Your task to perform on an android device: see creations saved in the google photos Image 0: 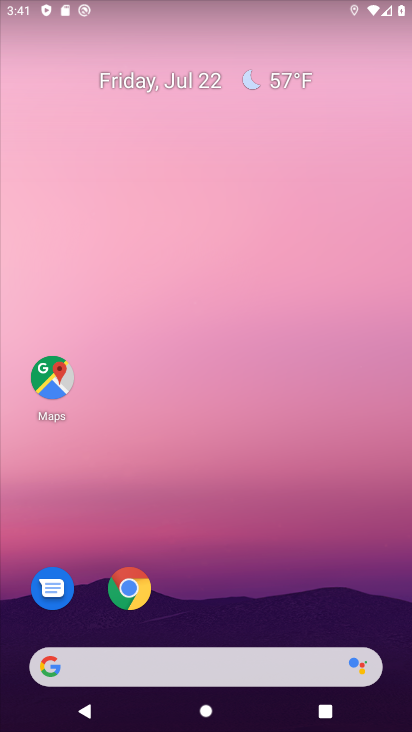
Step 0: drag from (211, 646) to (198, 86)
Your task to perform on an android device: see creations saved in the google photos Image 1: 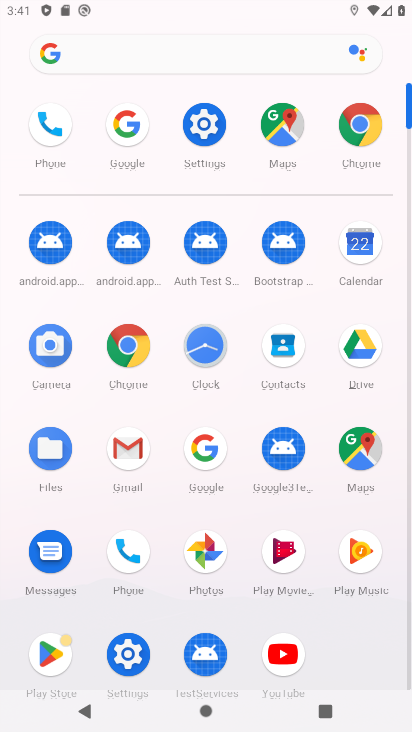
Step 1: click (189, 572)
Your task to perform on an android device: see creations saved in the google photos Image 2: 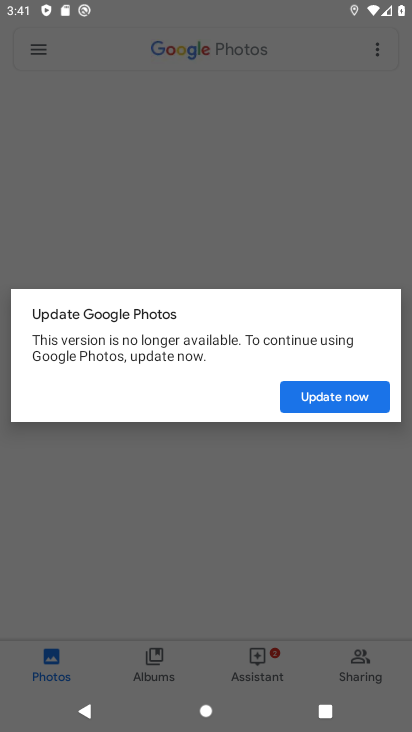
Step 2: click (346, 395)
Your task to perform on an android device: see creations saved in the google photos Image 3: 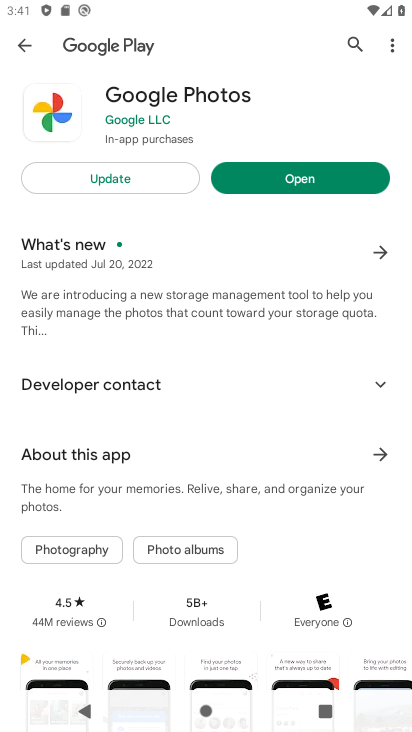
Step 3: click (124, 173)
Your task to perform on an android device: see creations saved in the google photos Image 4: 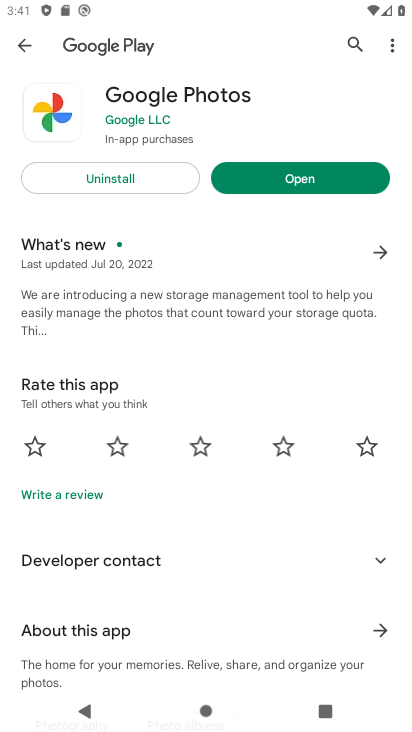
Step 4: click (305, 190)
Your task to perform on an android device: see creations saved in the google photos Image 5: 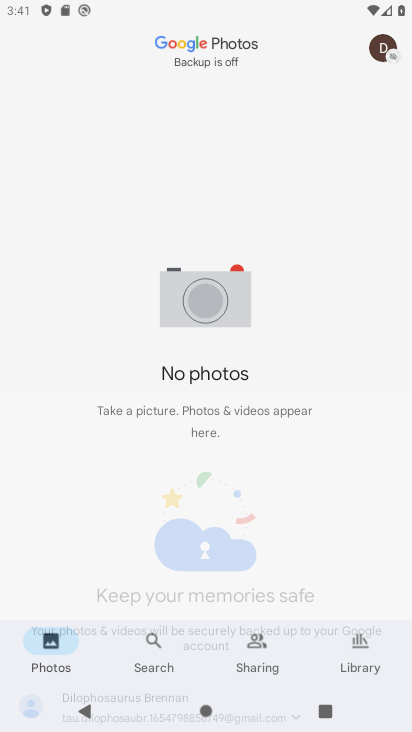
Step 5: click (156, 648)
Your task to perform on an android device: see creations saved in the google photos Image 6: 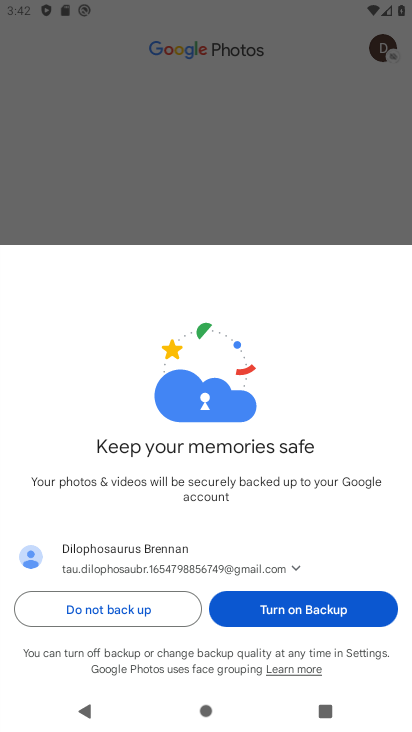
Step 6: click (155, 614)
Your task to perform on an android device: see creations saved in the google photos Image 7: 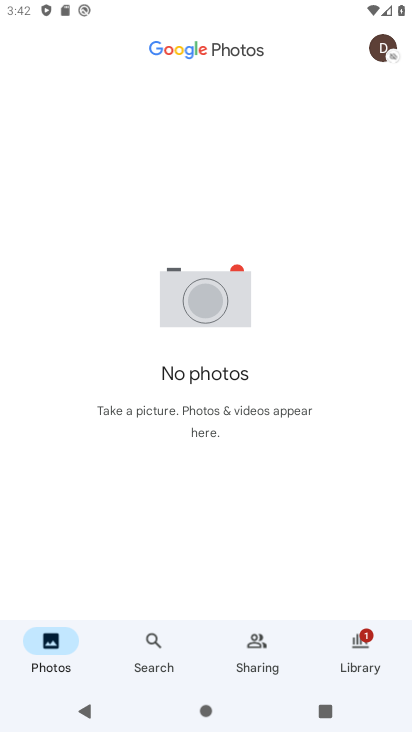
Step 7: click (153, 655)
Your task to perform on an android device: see creations saved in the google photos Image 8: 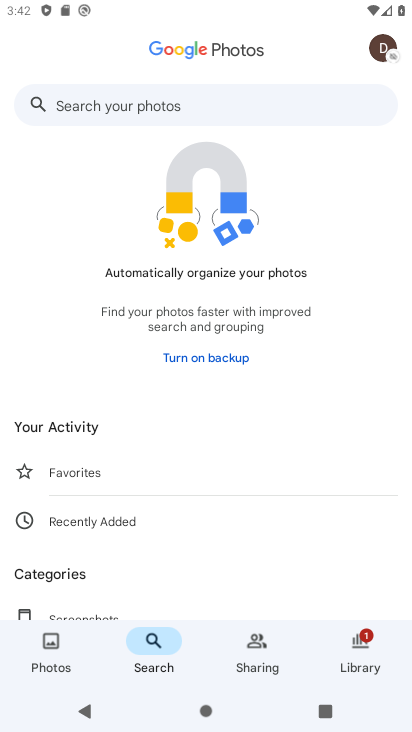
Step 8: click (169, 108)
Your task to perform on an android device: see creations saved in the google photos Image 9: 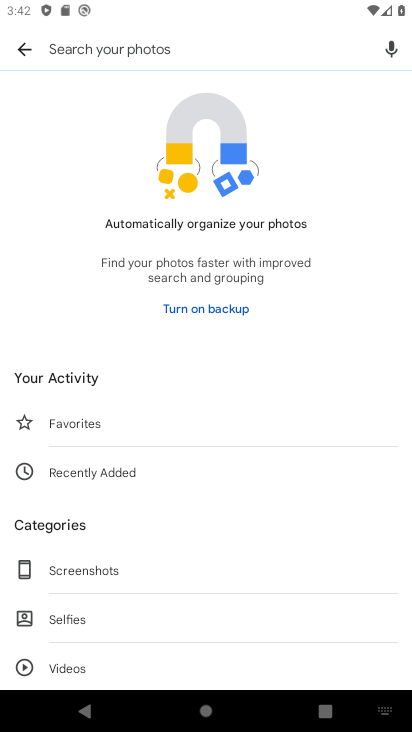
Step 9: drag from (134, 577) to (135, 183)
Your task to perform on an android device: see creations saved in the google photos Image 10: 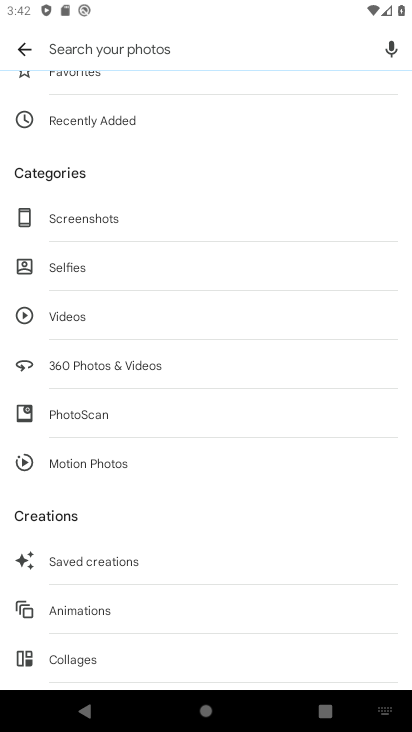
Step 10: click (98, 572)
Your task to perform on an android device: see creations saved in the google photos Image 11: 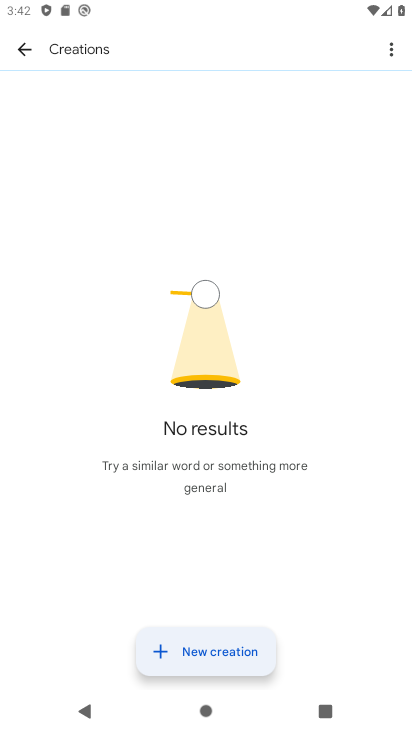
Step 11: task complete